Your task to perform on an android device: make emails show in primary in the gmail app Image 0: 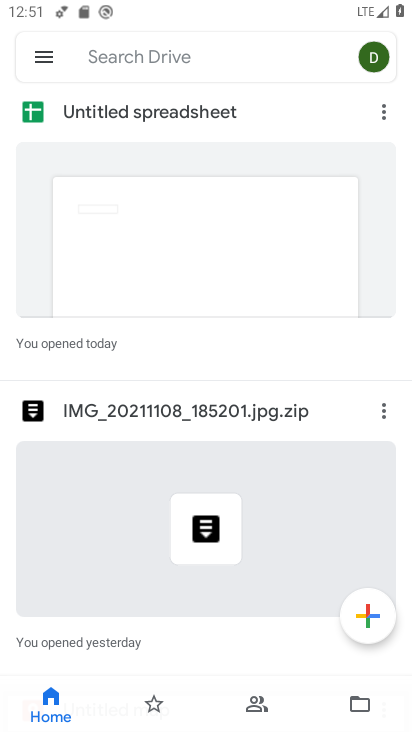
Step 0: press home button
Your task to perform on an android device: make emails show in primary in the gmail app Image 1: 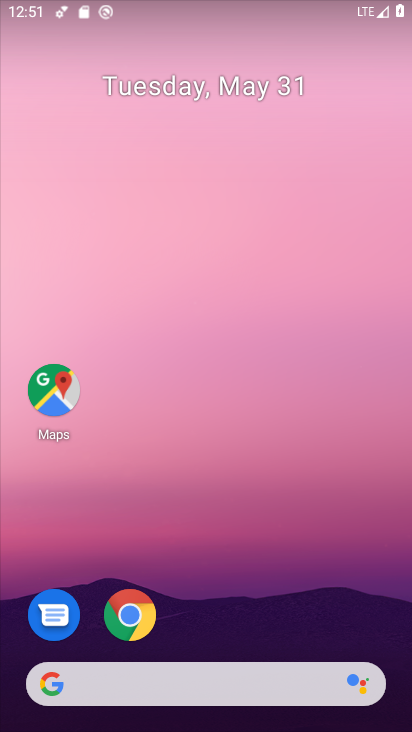
Step 1: drag from (216, 601) to (309, 11)
Your task to perform on an android device: make emails show in primary in the gmail app Image 2: 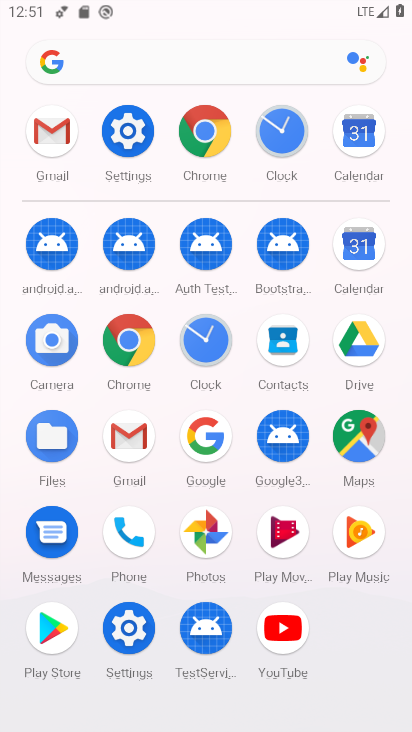
Step 2: click (122, 450)
Your task to perform on an android device: make emails show in primary in the gmail app Image 3: 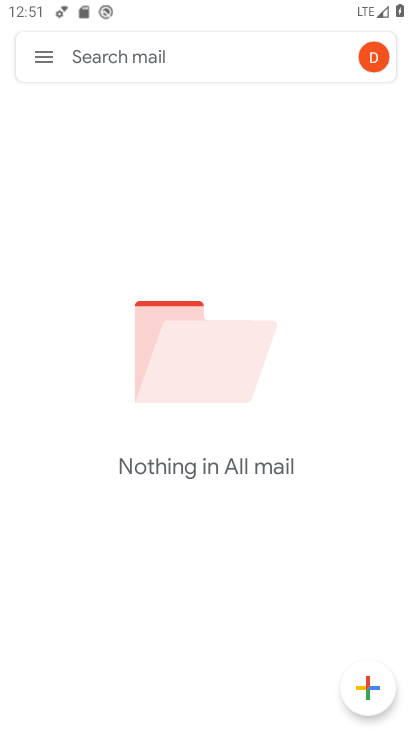
Step 3: click (46, 41)
Your task to perform on an android device: make emails show in primary in the gmail app Image 4: 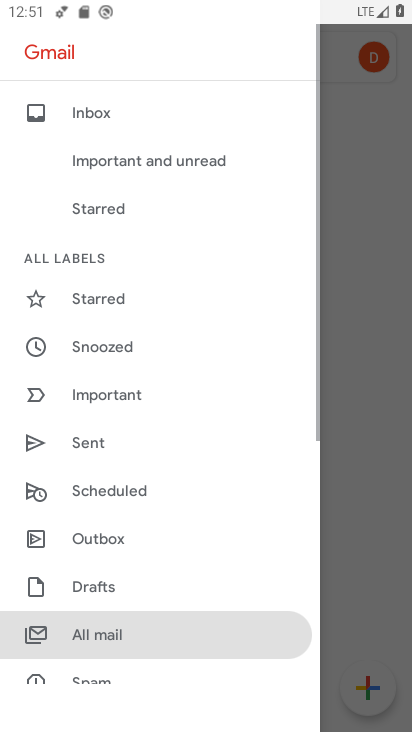
Step 4: drag from (103, 557) to (151, 311)
Your task to perform on an android device: make emails show in primary in the gmail app Image 5: 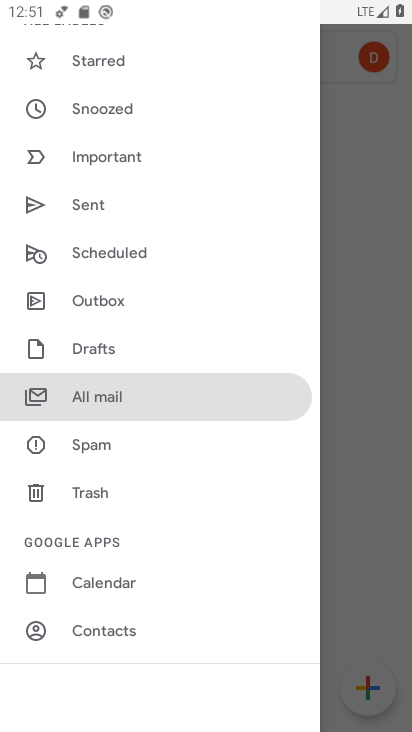
Step 5: drag from (142, 614) to (153, 550)
Your task to perform on an android device: make emails show in primary in the gmail app Image 6: 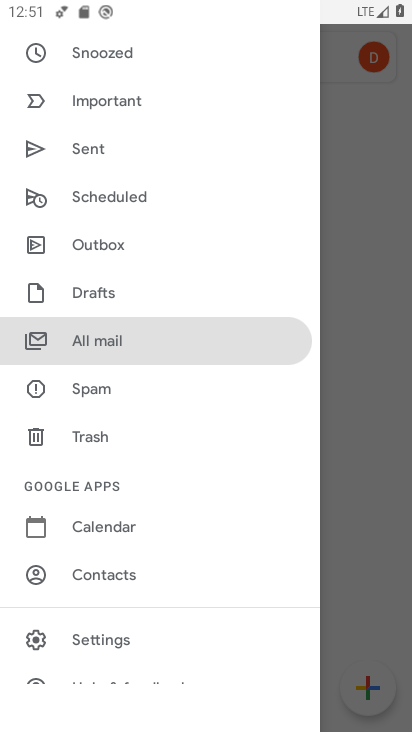
Step 6: click (99, 631)
Your task to perform on an android device: make emails show in primary in the gmail app Image 7: 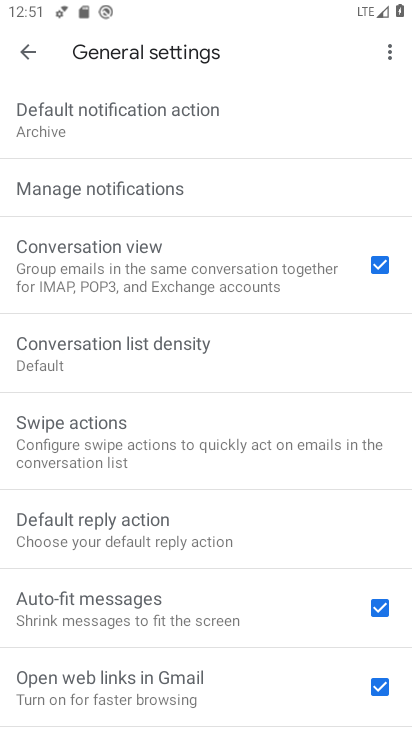
Step 7: click (36, 55)
Your task to perform on an android device: make emails show in primary in the gmail app Image 8: 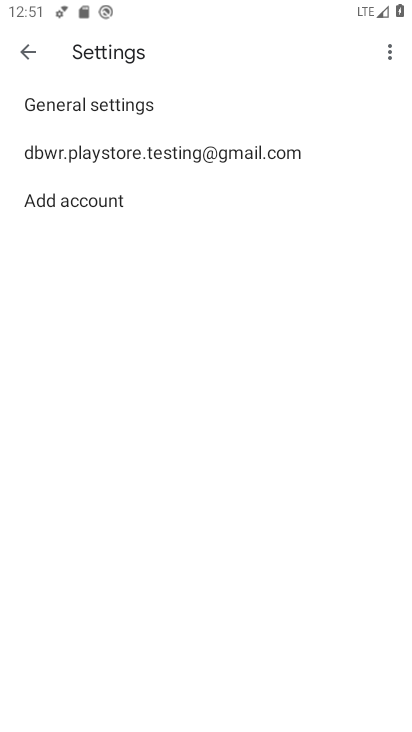
Step 8: click (161, 157)
Your task to perform on an android device: make emails show in primary in the gmail app Image 9: 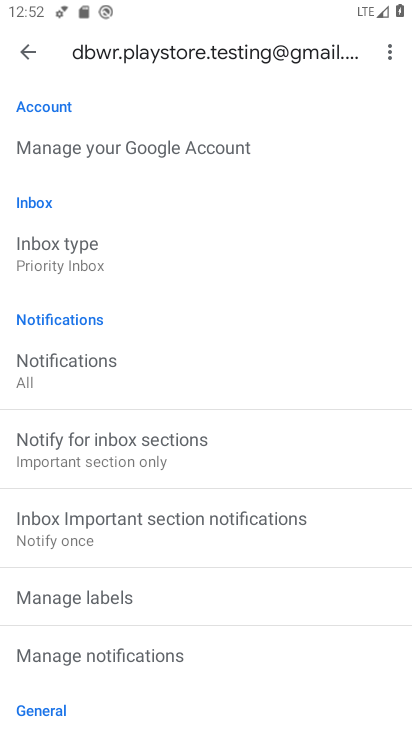
Step 9: click (73, 254)
Your task to perform on an android device: make emails show in primary in the gmail app Image 10: 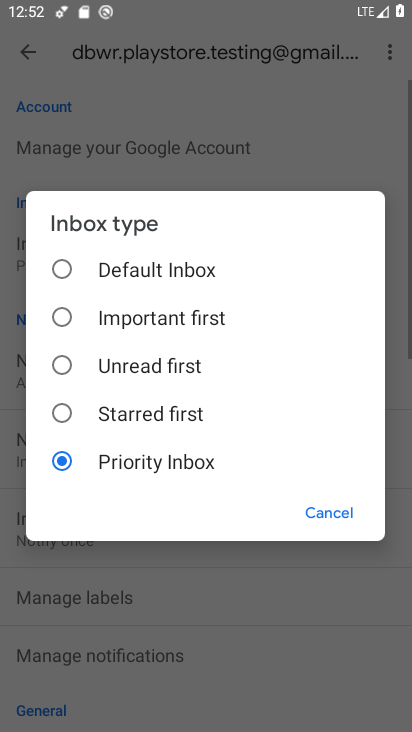
Step 10: click (117, 265)
Your task to perform on an android device: make emails show in primary in the gmail app Image 11: 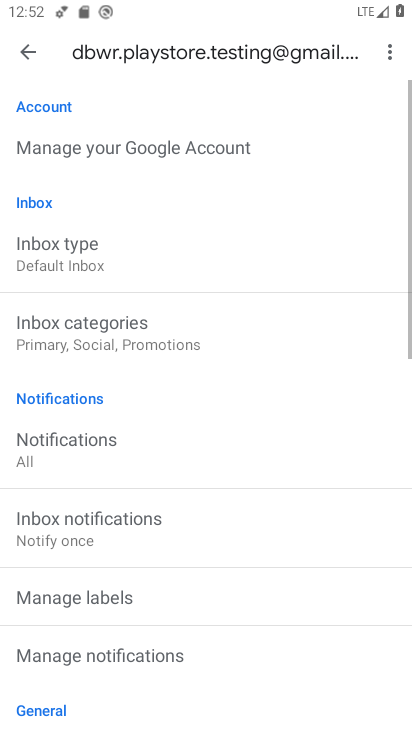
Step 11: click (98, 337)
Your task to perform on an android device: make emails show in primary in the gmail app Image 12: 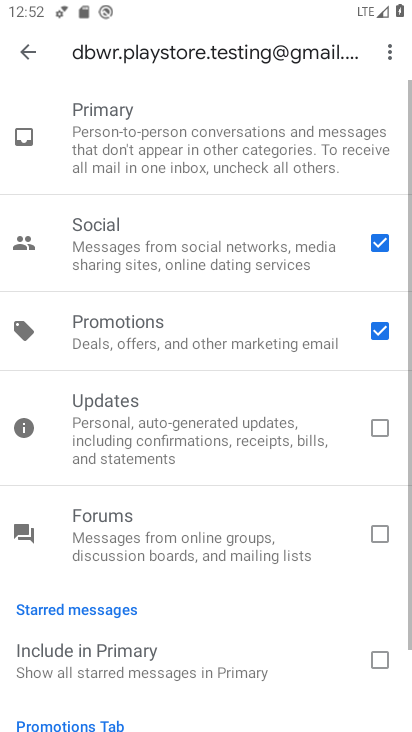
Step 12: click (360, 233)
Your task to perform on an android device: make emails show in primary in the gmail app Image 13: 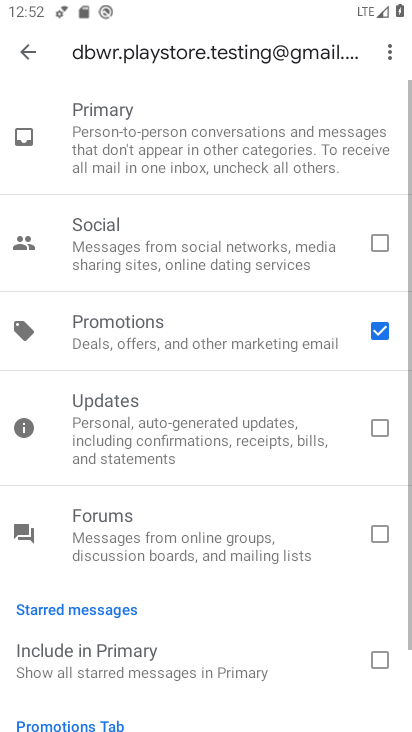
Step 13: click (385, 337)
Your task to perform on an android device: make emails show in primary in the gmail app Image 14: 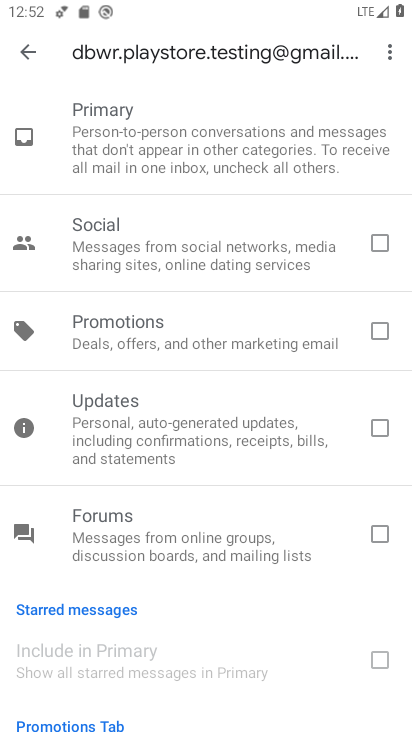
Step 14: task complete